Your task to perform on an android device: set the timer Image 0: 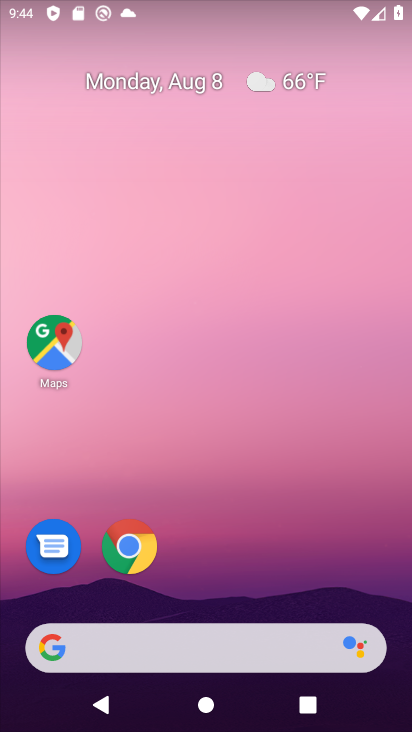
Step 0: drag from (225, 479) to (308, 196)
Your task to perform on an android device: set the timer Image 1: 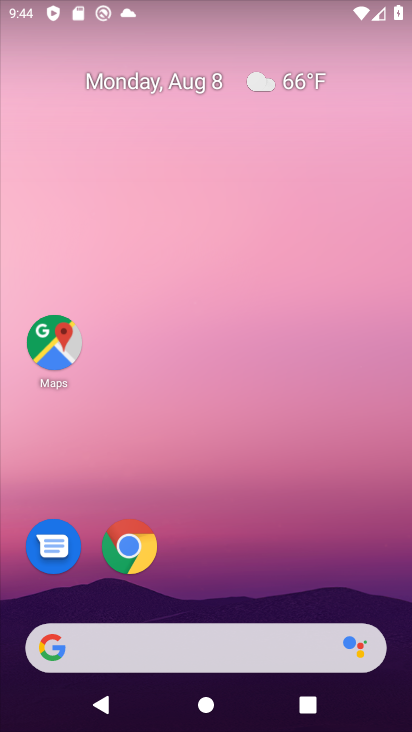
Step 1: drag from (256, 368) to (282, 144)
Your task to perform on an android device: set the timer Image 2: 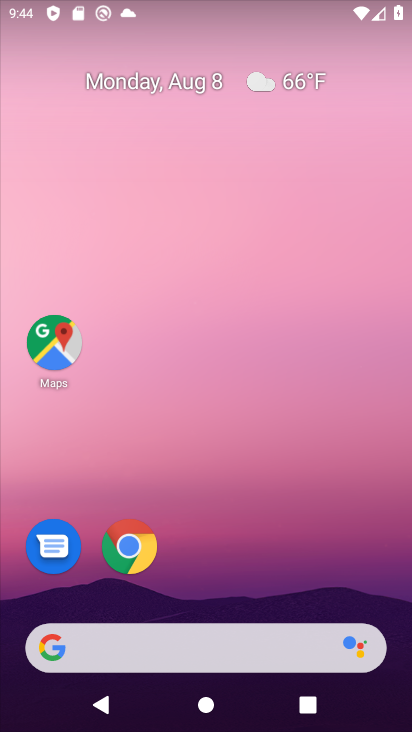
Step 2: drag from (192, 491) to (231, 85)
Your task to perform on an android device: set the timer Image 3: 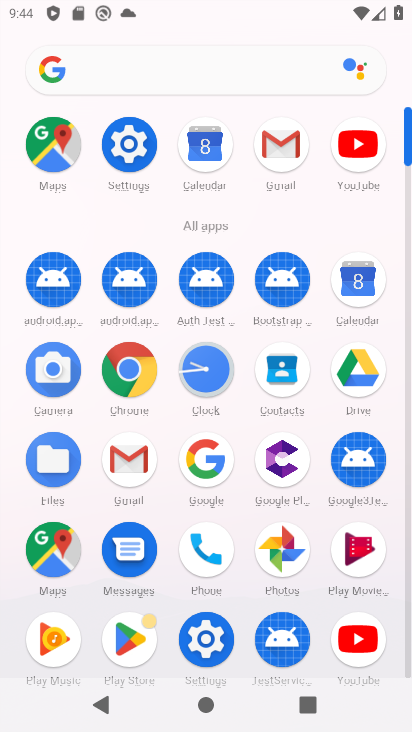
Step 3: click (203, 379)
Your task to perform on an android device: set the timer Image 4: 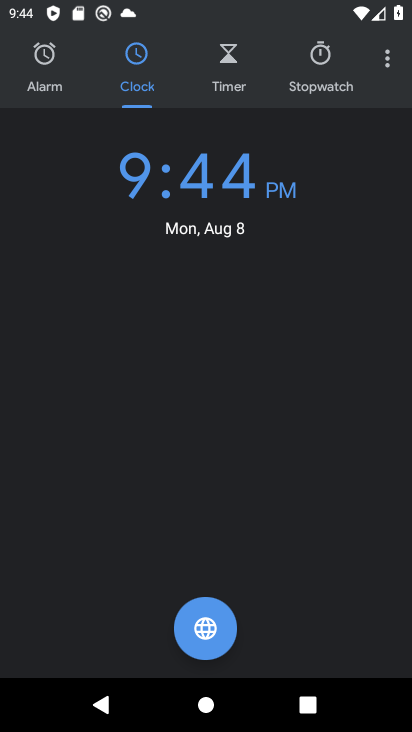
Step 4: task complete